Your task to perform on an android device: Open Wikipedia Image 0: 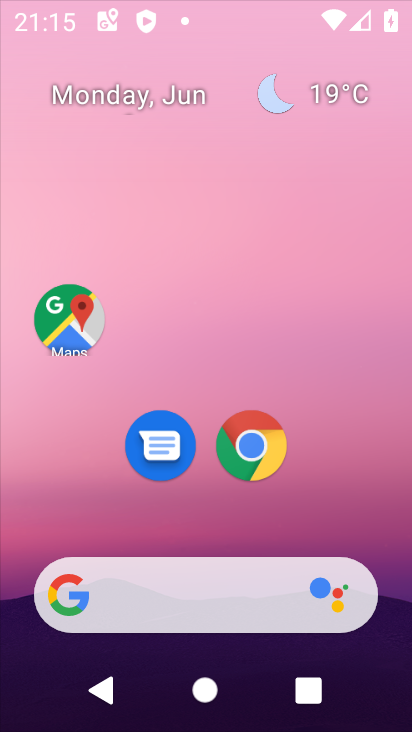
Step 0: press home button
Your task to perform on an android device: Open Wikipedia Image 1: 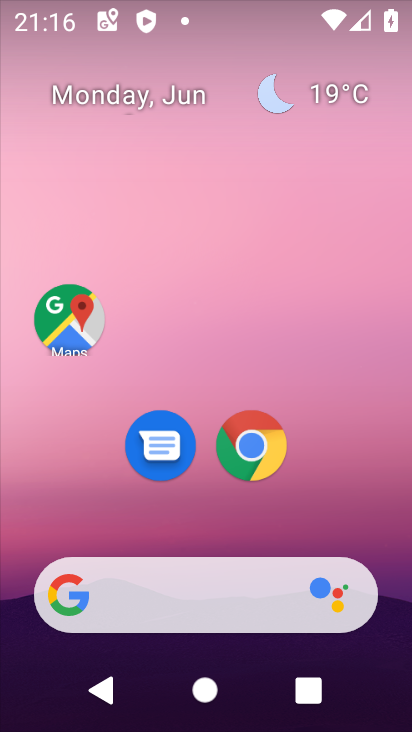
Step 1: click (250, 444)
Your task to perform on an android device: Open Wikipedia Image 2: 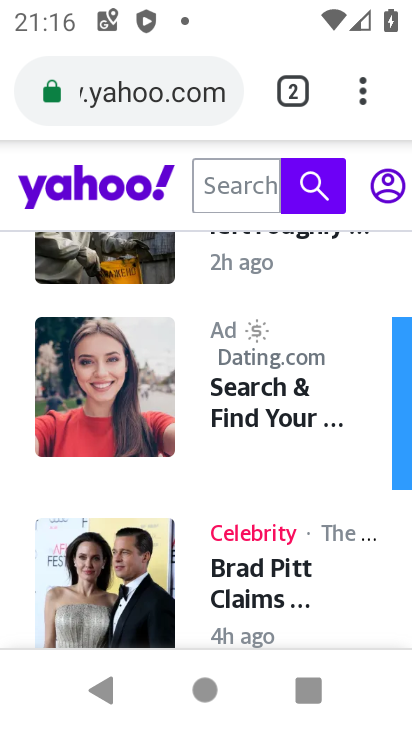
Step 2: click (294, 90)
Your task to perform on an android device: Open Wikipedia Image 3: 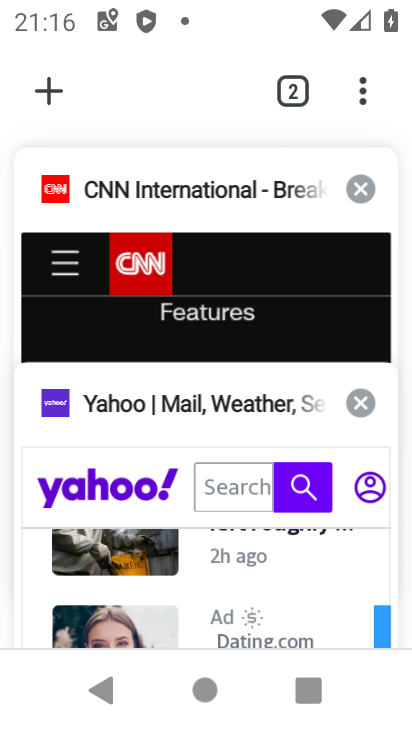
Step 3: click (360, 180)
Your task to perform on an android device: Open Wikipedia Image 4: 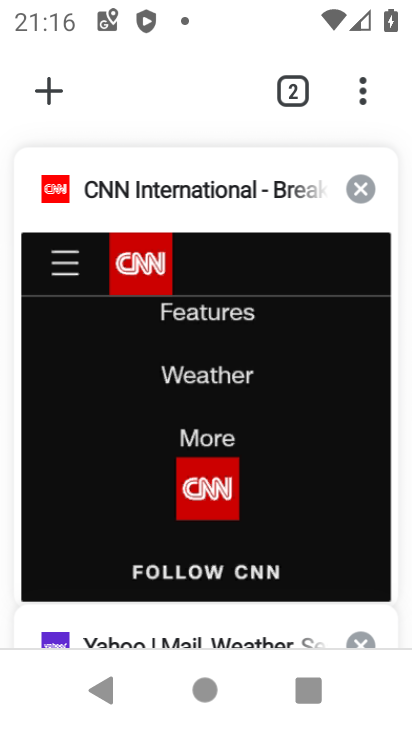
Step 4: click (362, 182)
Your task to perform on an android device: Open Wikipedia Image 5: 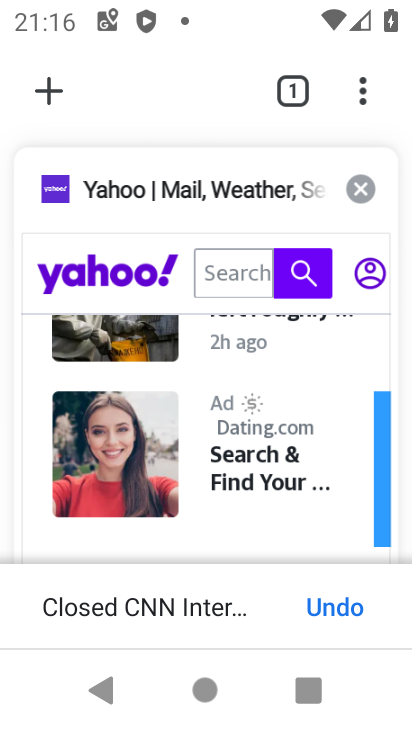
Step 5: click (51, 91)
Your task to perform on an android device: Open Wikipedia Image 6: 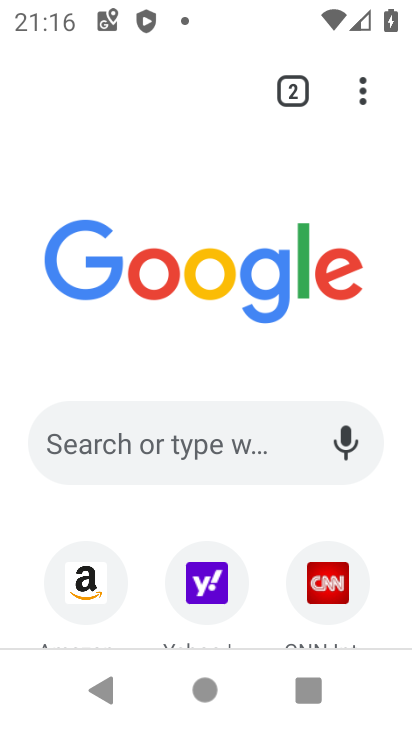
Step 6: drag from (256, 545) to (234, 180)
Your task to perform on an android device: Open Wikipedia Image 7: 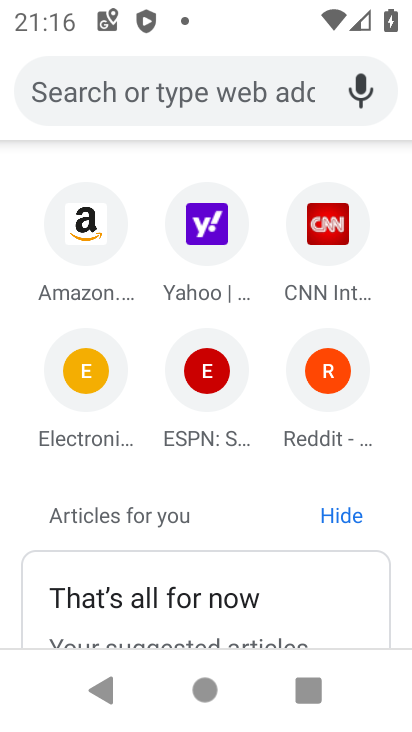
Step 7: click (106, 78)
Your task to perform on an android device: Open Wikipedia Image 8: 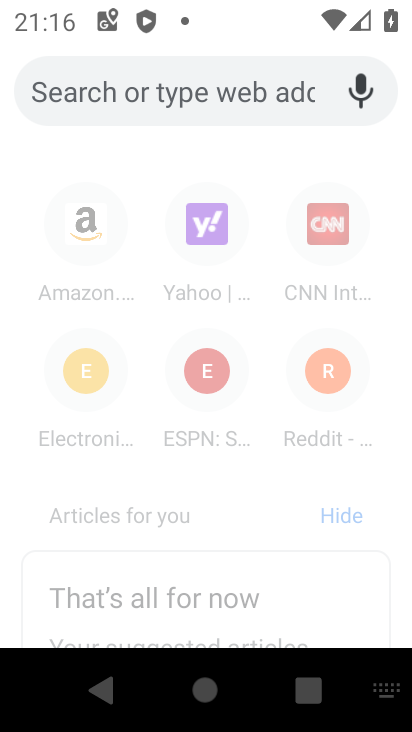
Step 8: type "wikipedia"
Your task to perform on an android device: Open Wikipedia Image 9: 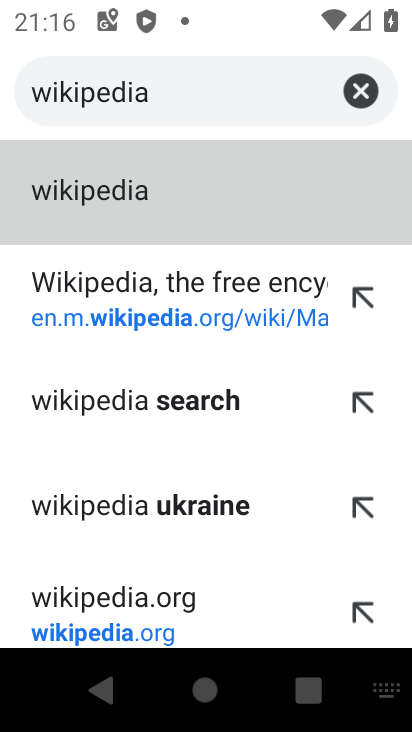
Step 9: click (202, 299)
Your task to perform on an android device: Open Wikipedia Image 10: 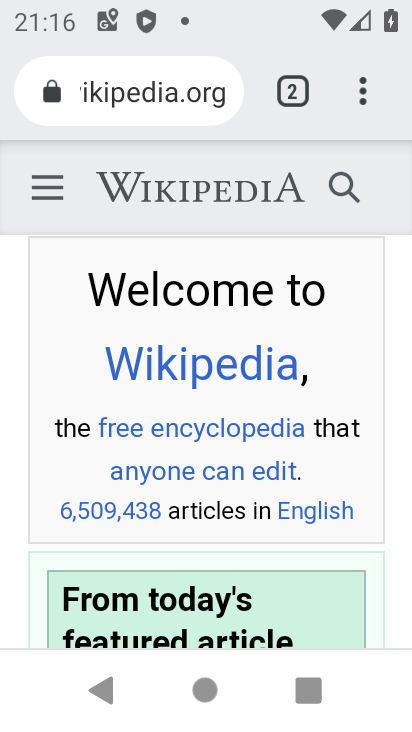
Step 10: drag from (222, 547) to (216, 258)
Your task to perform on an android device: Open Wikipedia Image 11: 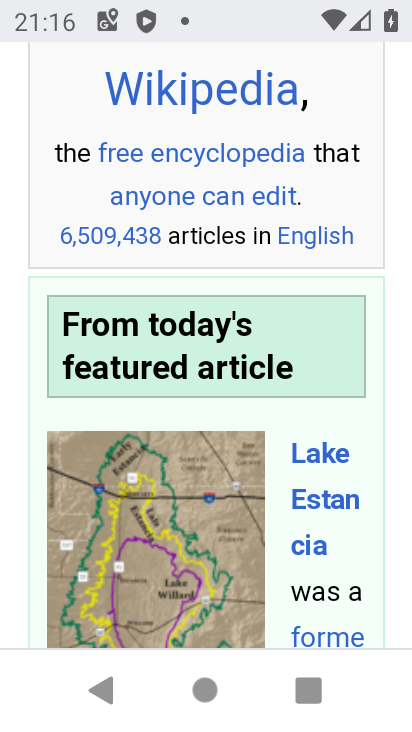
Step 11: drag from (263, 613) to (258, 392)
Your task to perform on an android device: Open Wikipedia Image 12: 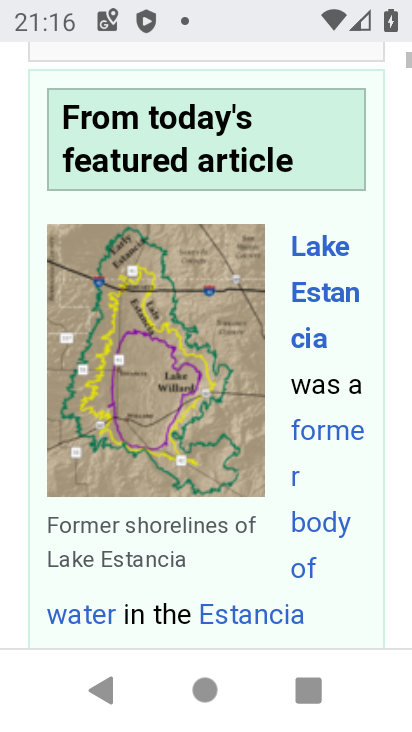
Step 12: click (266, 307)
Your task to perform on an android device: Open Wikipedia Image 13: 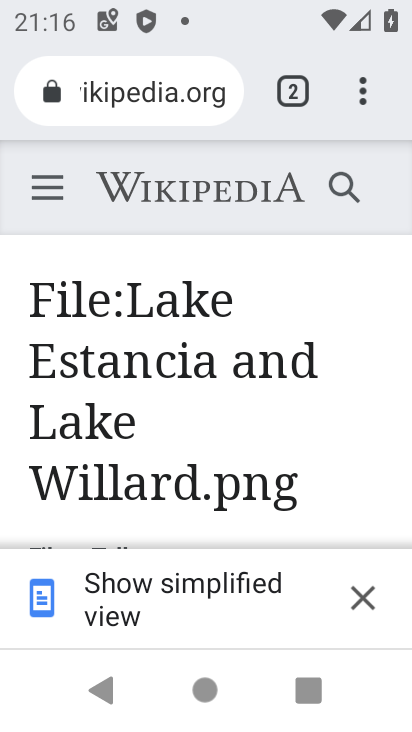
Step 13: click (367, 604)
Your task to perform on an android device: Open Wikipedia Image 14: 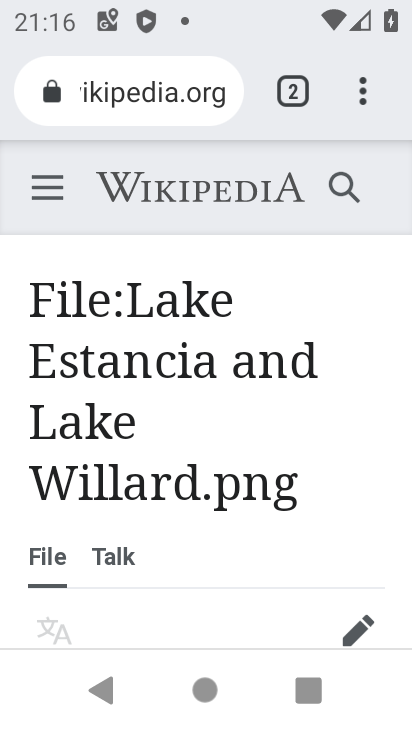
Step 14: task complete